Your task to perform on an android device: all mails in gmail Image 0: 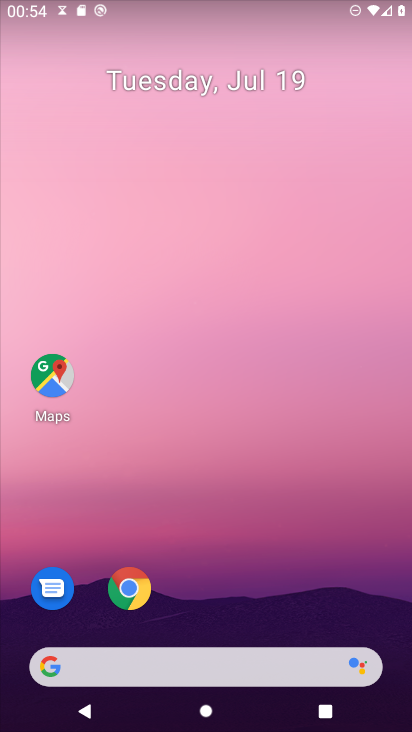
Step 0: press home button
Your task to perform on an android device: all mails in gmail Image 1: 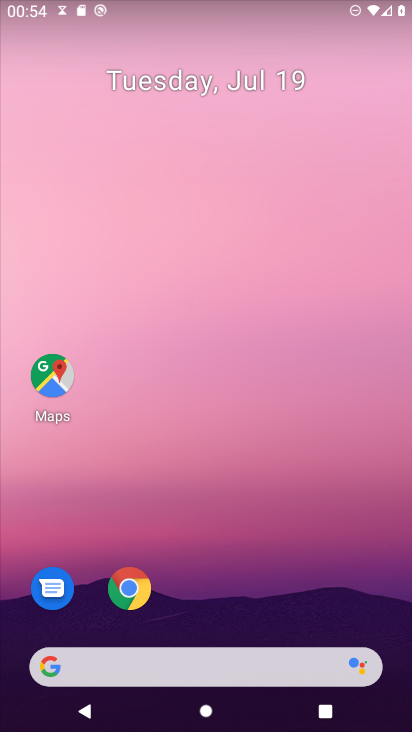
Step 1: drag from (285, 568) to (300, 160)
Your task to perform on an android device: all mails in gmail Image 2: 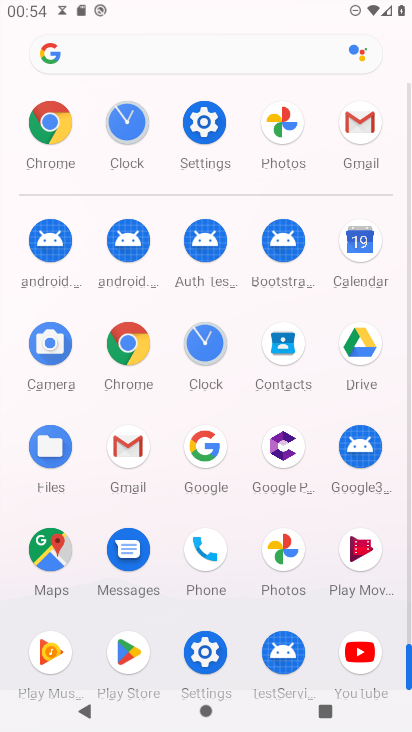
Step 2: click (364, 128)
Your task to perform on an android device: all mails in gmail Image 3: 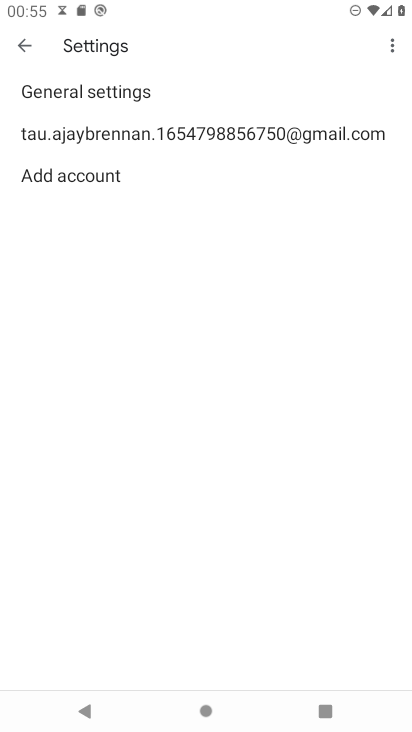
Step 3: click (10, 48)
Your task to perform on an android device: all mails in gmail Image 4: 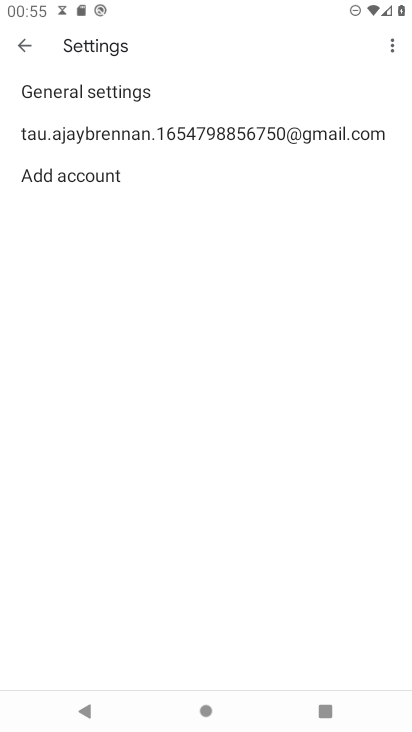
Step 4: click (21, 50)
Your task to perform on an android device: all mails in gmail Image 5: 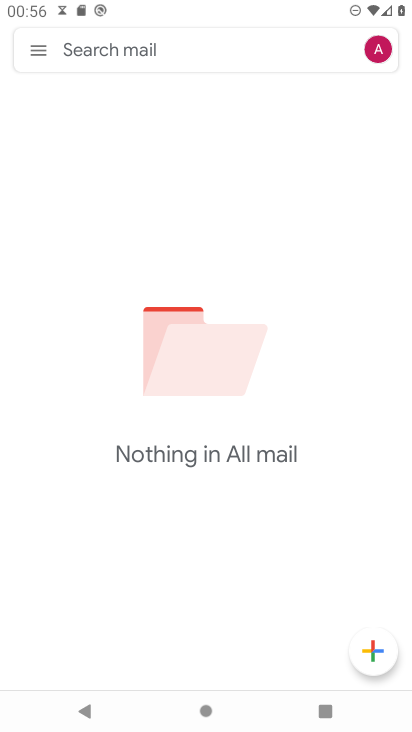
Step 5: click (36, 48)
Your task to perform on an android device: all mails in gmail Image 6: 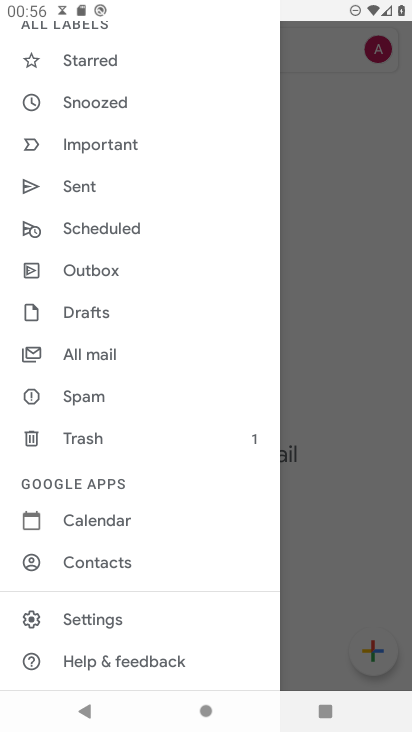
Step 6: click (65, 363)
Your task to perform on an android device: all mails in gmail Image 7: 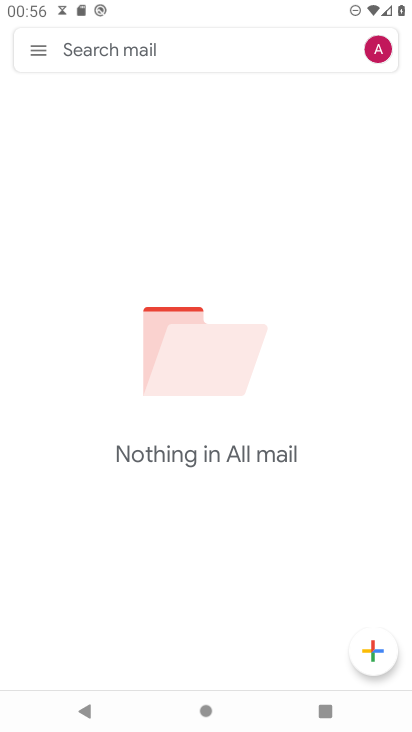
Step 7: task complete